Your task to perform on an android device: When is my next appointment? Image 0: 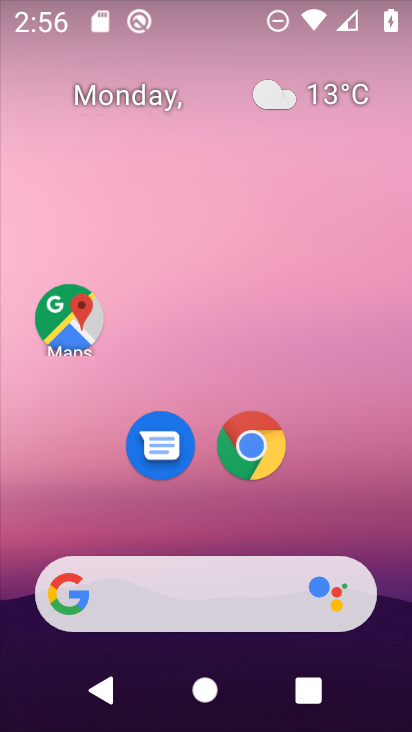
Step 0: drag from (381, 615) to (337, 97)
Your task to perform on an android device: When is my next appointment? Image 1: 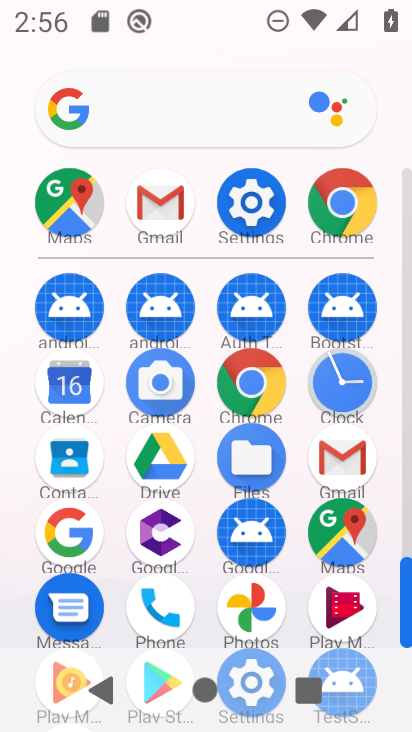
Step 1: click (43, 389)
Your task to perform on an android device: When is my next appointment? Image 2: 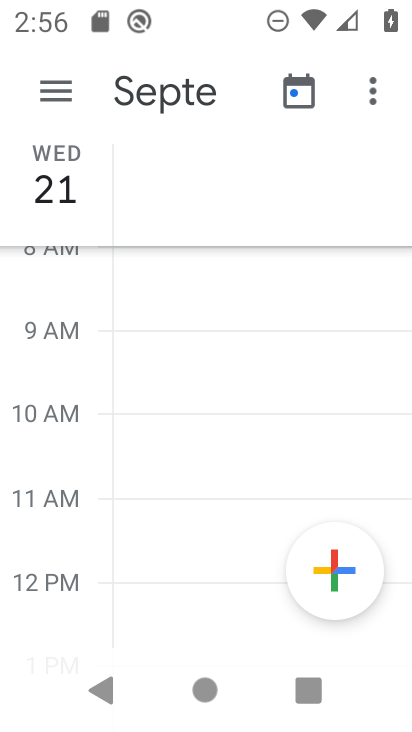
Step 2: task complete